Your task to perform on an android device: Search for sushi restaurants on Maps Image 0: 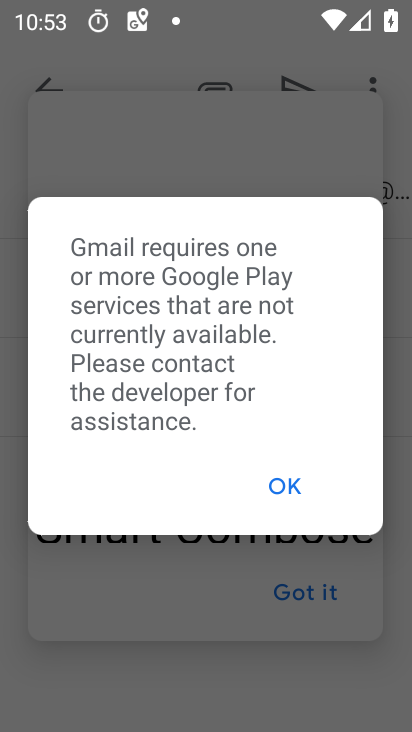
Step 0: press home button
Your task to perform on an android device: Search for sushi restaurants on Maps Image 1: 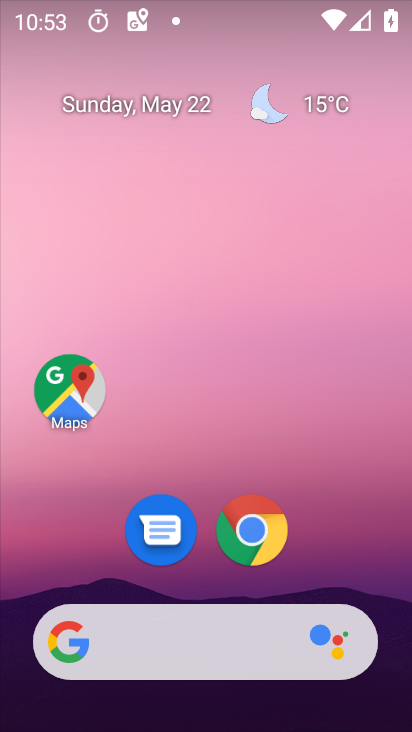
Step 1: click (69, 390)
Your task to perform on an android device: Search for sushi restaurants on Maps Image 2: 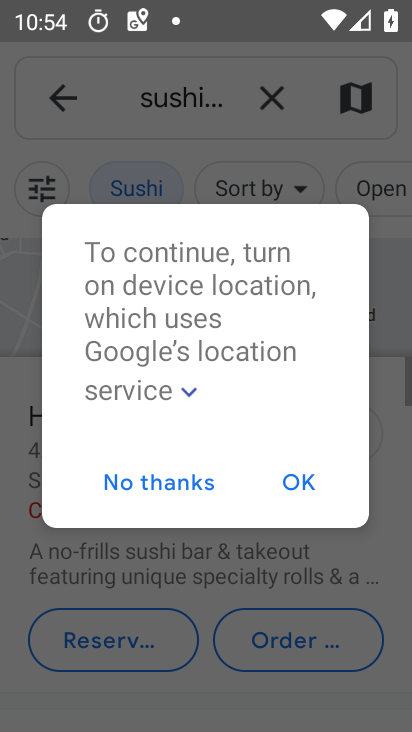
Step 2: click (297, 472)
Your task to perform on an android device: Search for sushi restaurants on Maps Image 3: 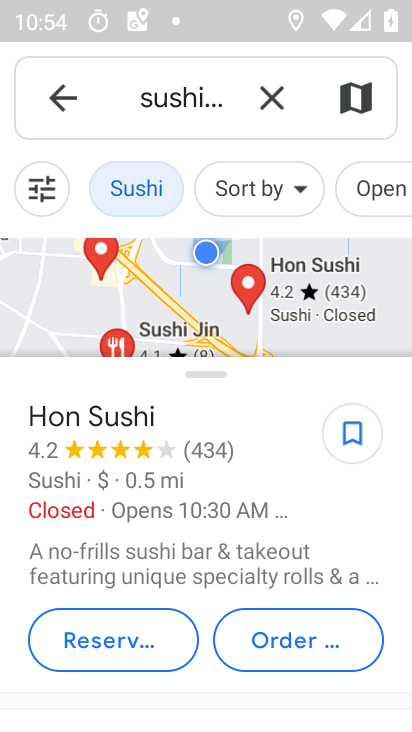
Step 3: task complete